Your task to perform on an android device: Empty the shopping cart on bestbuy.com. Image 0: 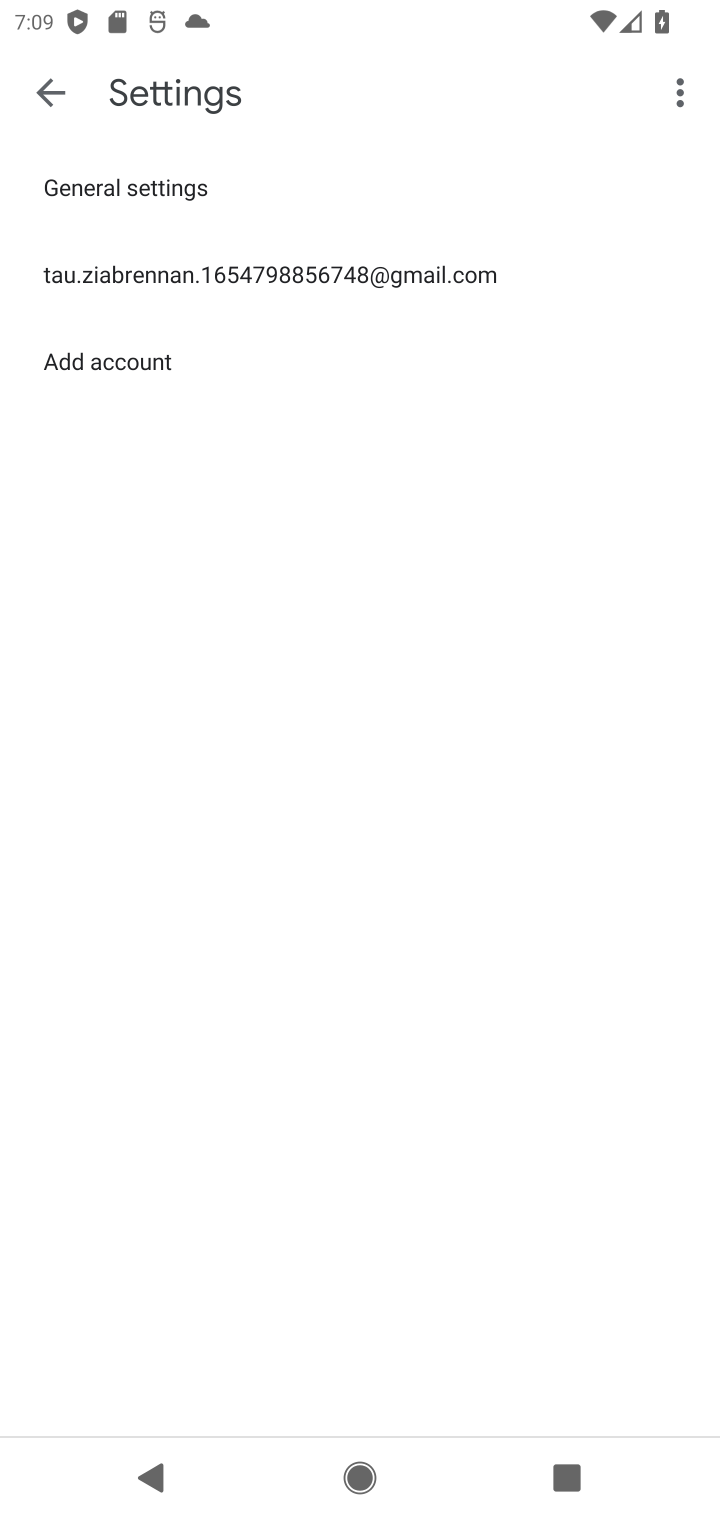
Step 0: press home button
Your task to perform on an android device: Empty the shopping cart on bestbuy.com. Image 1: 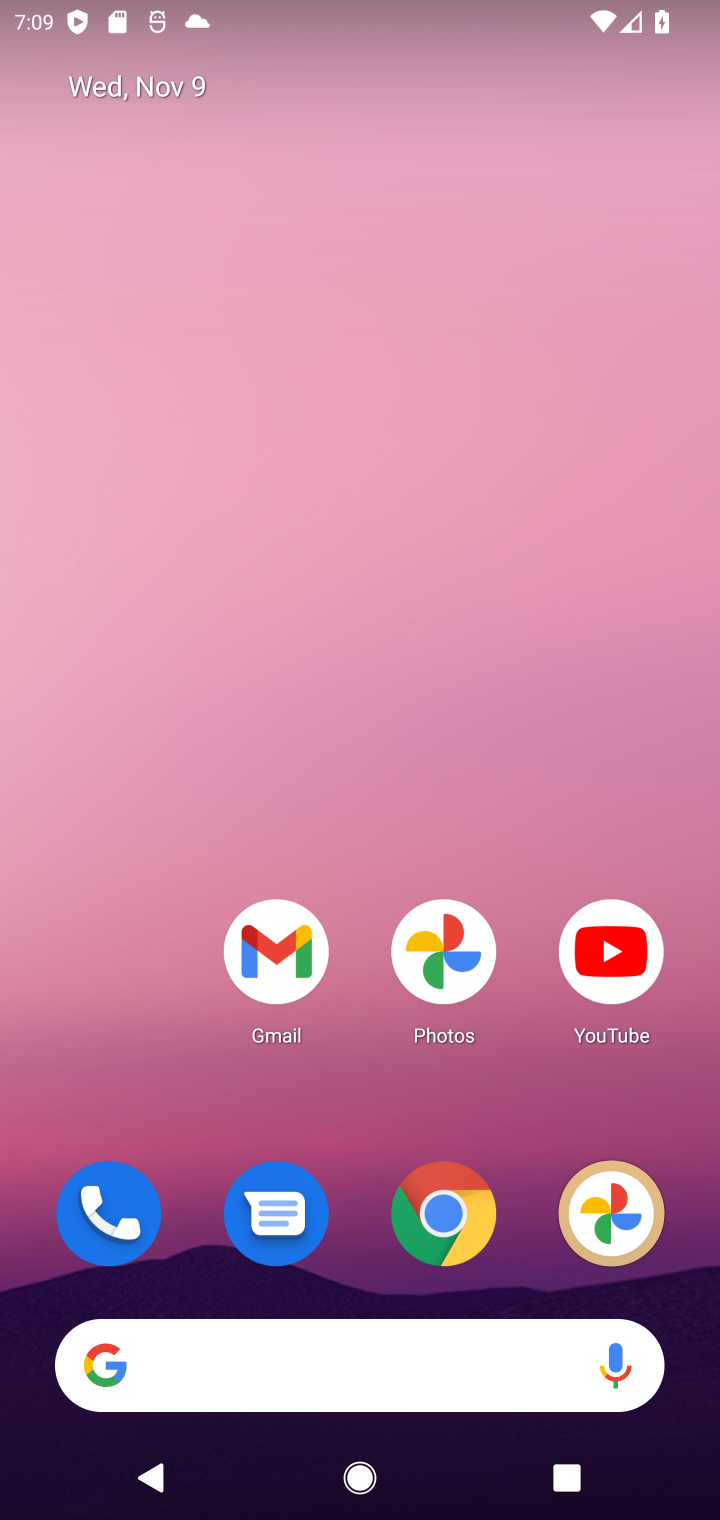
Step 1: click (447, 1256)
Your task to perform on an android device: Empty the shopping cart on bestbuy.com. Image 2: 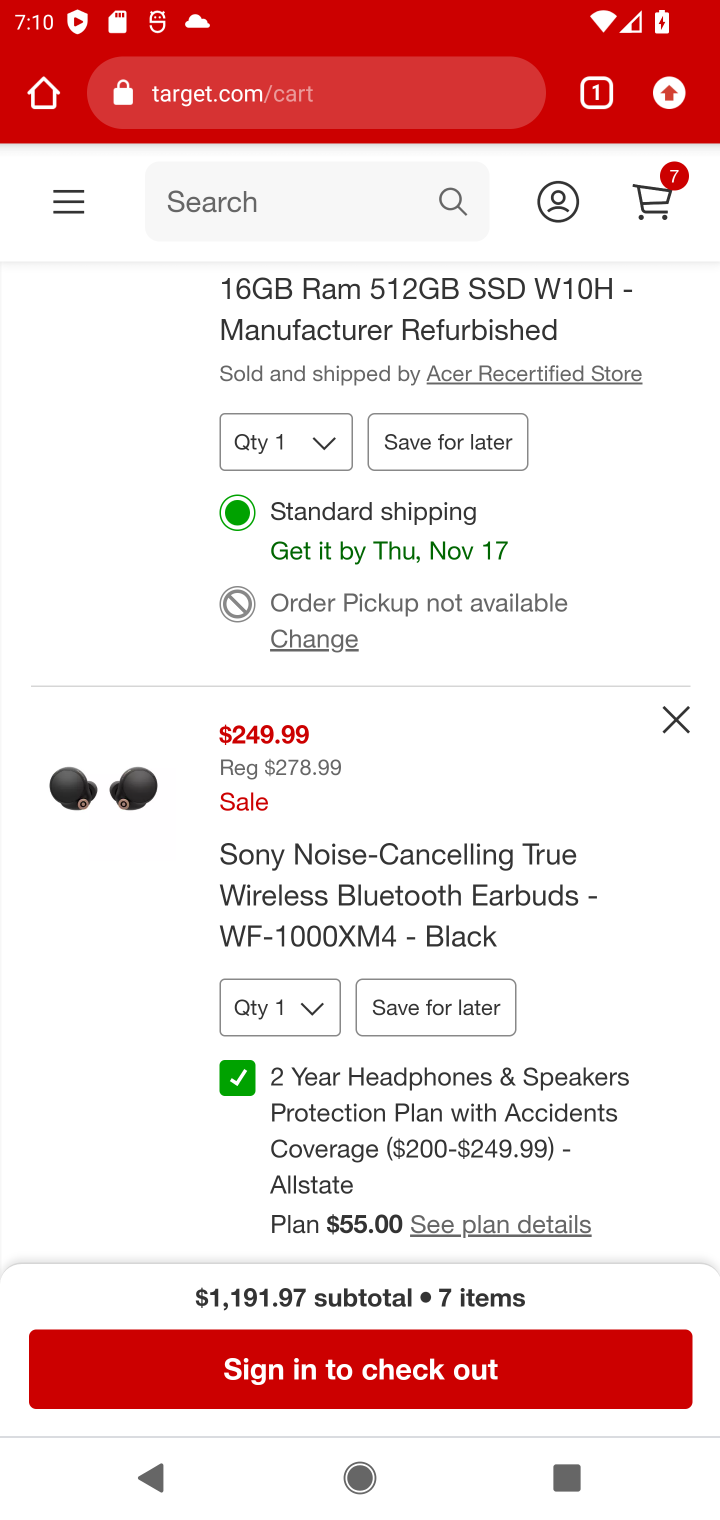
Step 2: click (231, 215)
Your task to perform on an android device: Empty the shopping cart on bestbuy.com. Image 3: 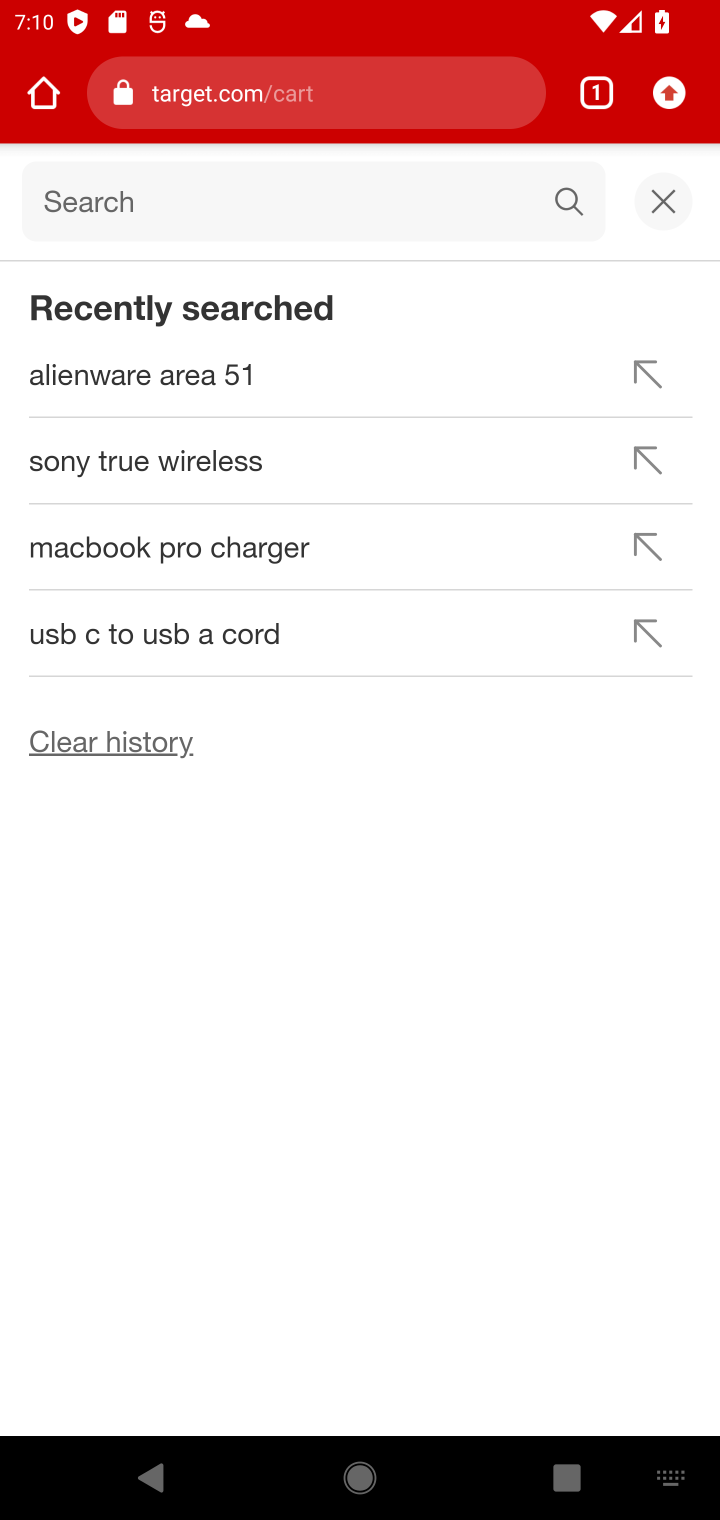
Step 3: type "bestbuy"
Your task to perform on an android device: Empty the shopping cart on bestbuy.com. Image 4: 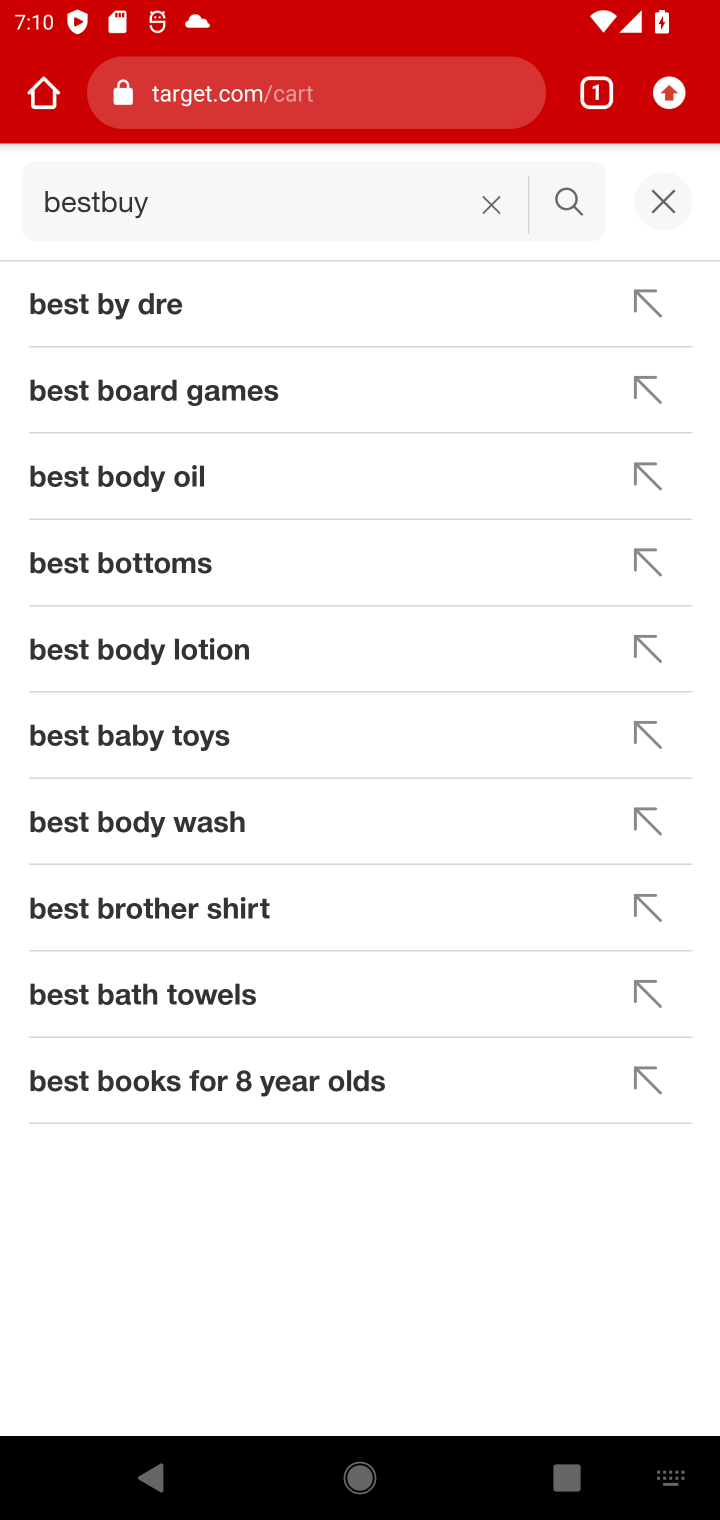
Step 4: click (97, 304)
Your task to perform on an android device: Empty the shopping cart on bestbuy.com. Image 5: 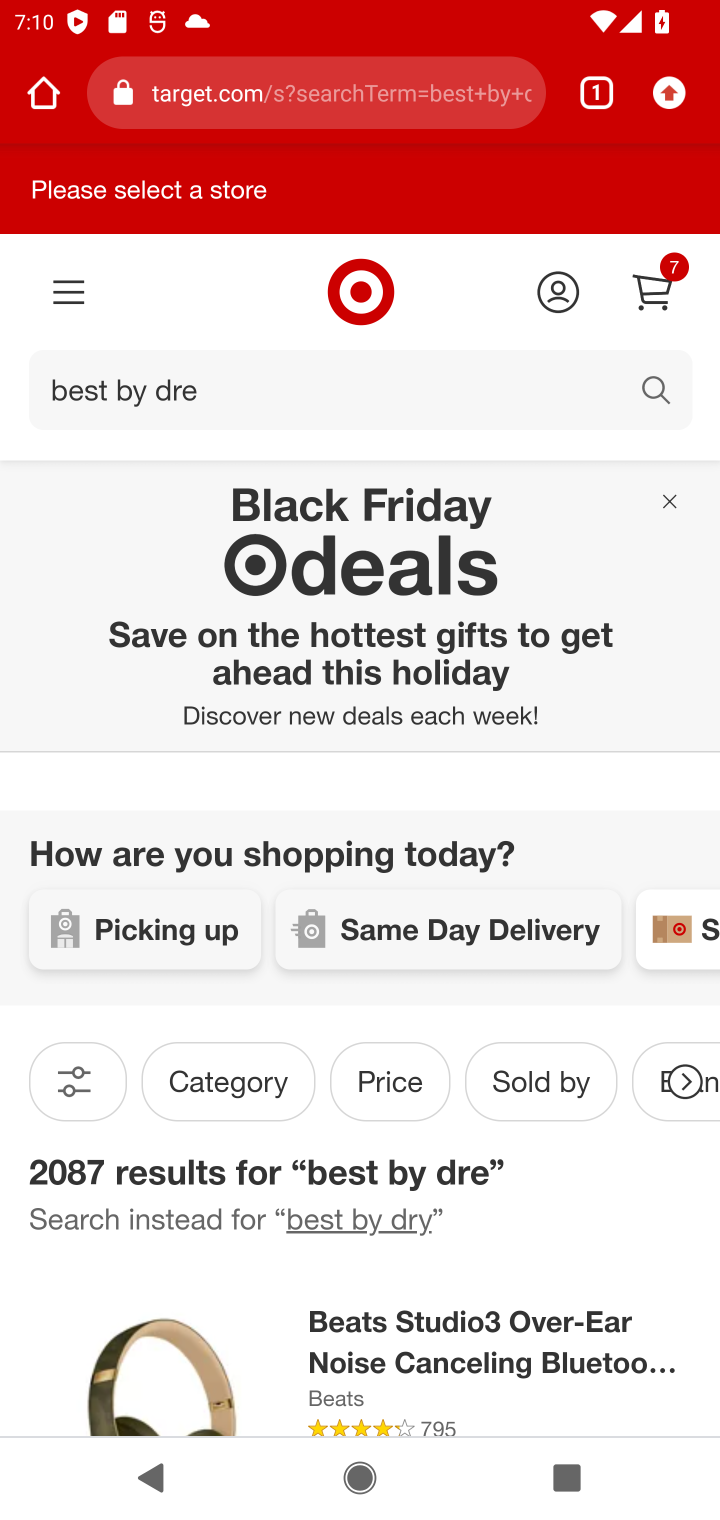
Step 5: drag from (234, 1239) to (250, 604)
Your task to perform on an android device: Empty the shopping cart on bestbuy.com. Image 6: 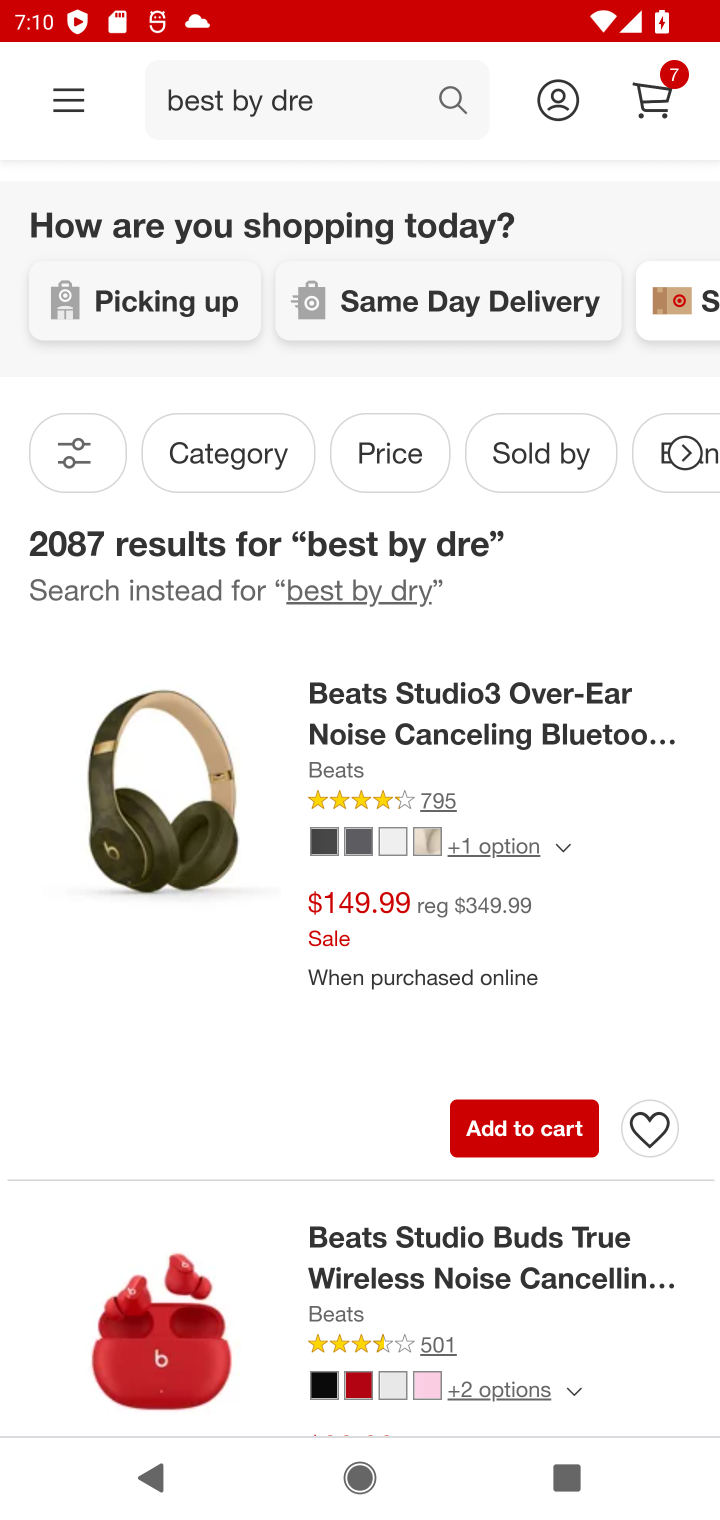
Step 6: drag from (312, 1080) to (320, 604)
Your task to perform on an android device: Empty the shopping cart on bestbuy.com. Image 7: 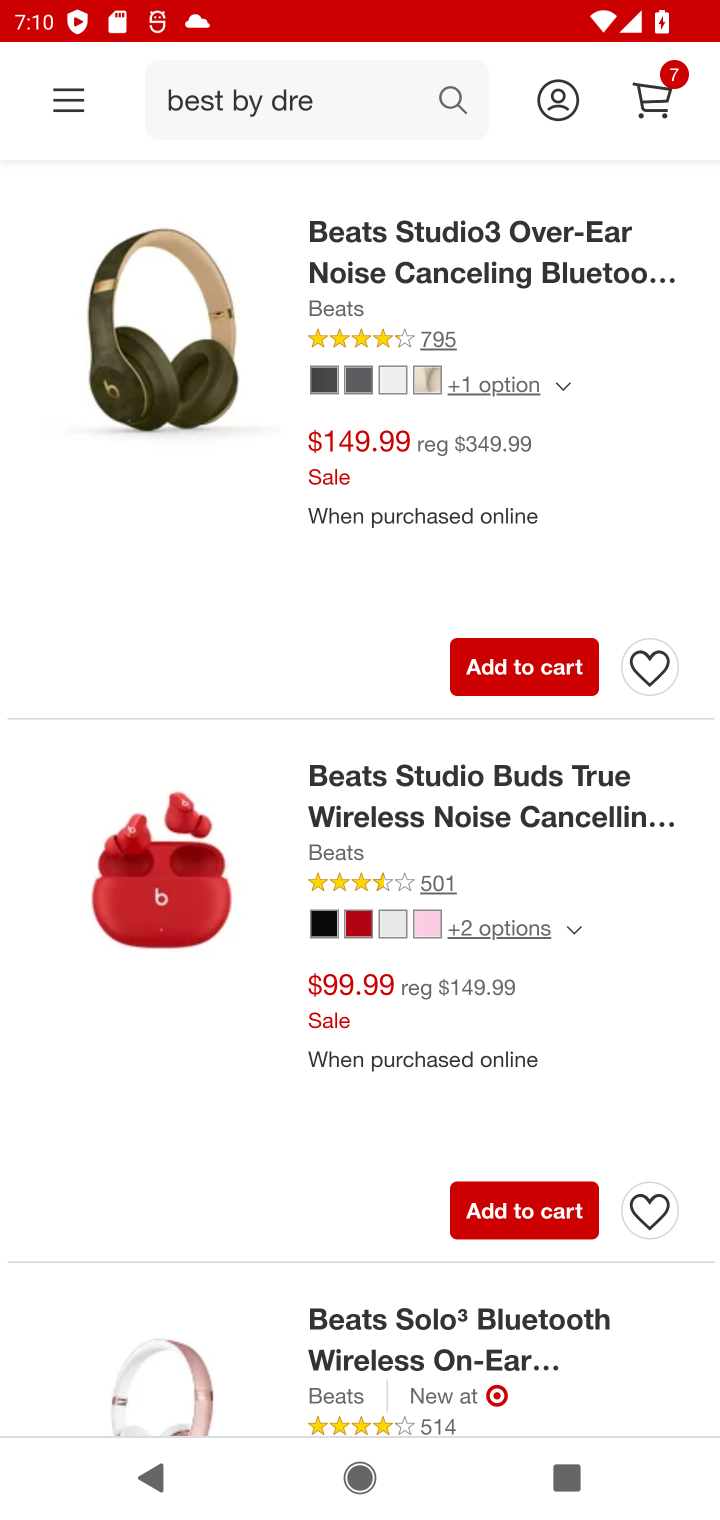
Step 7: click (342, 1308)
Your task to perform on an android device: Empty the shopping cart on bestbuy.com. Image 8: 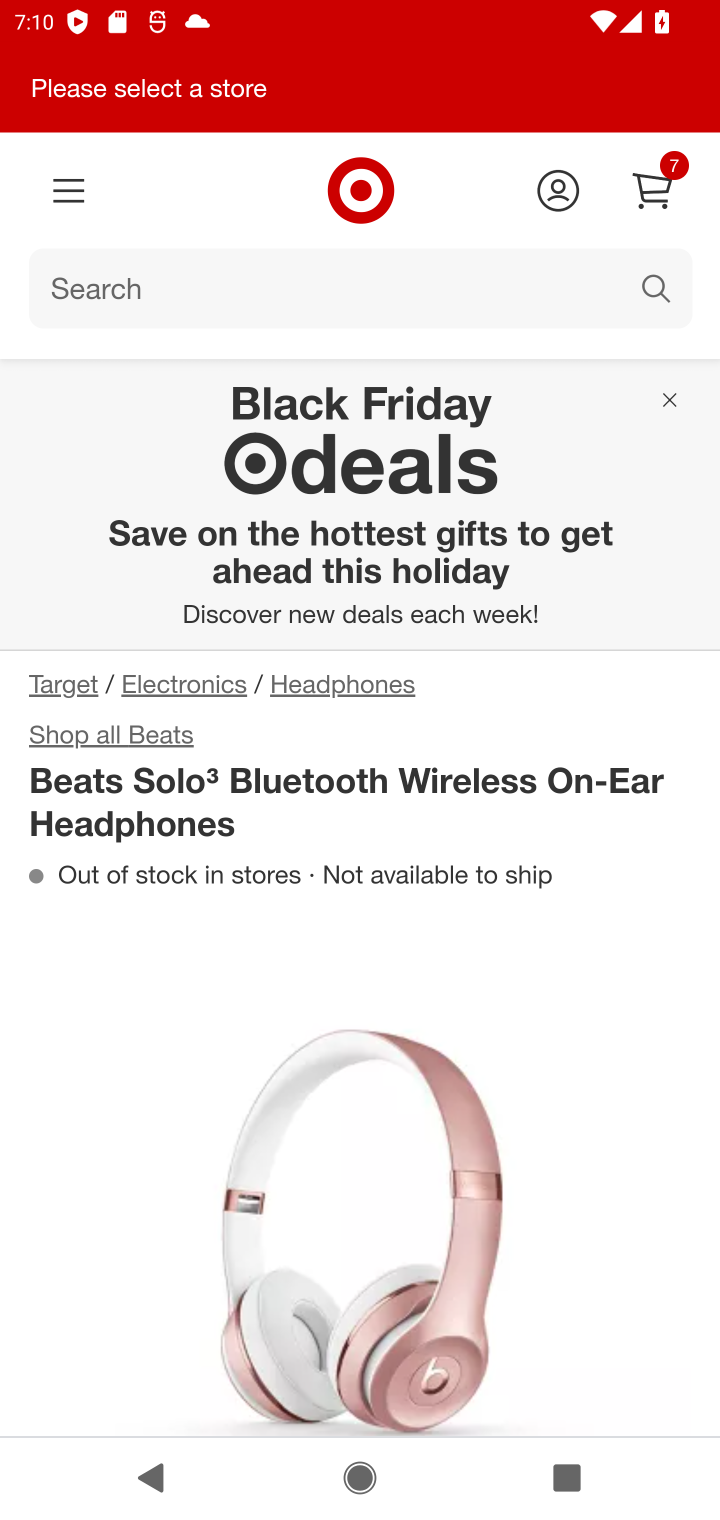
Step 8: drag from (152, 1172) to (390, 383)
Your task to perform on an android device: Empty the shopping cart on bestbuy.com. Image 9: 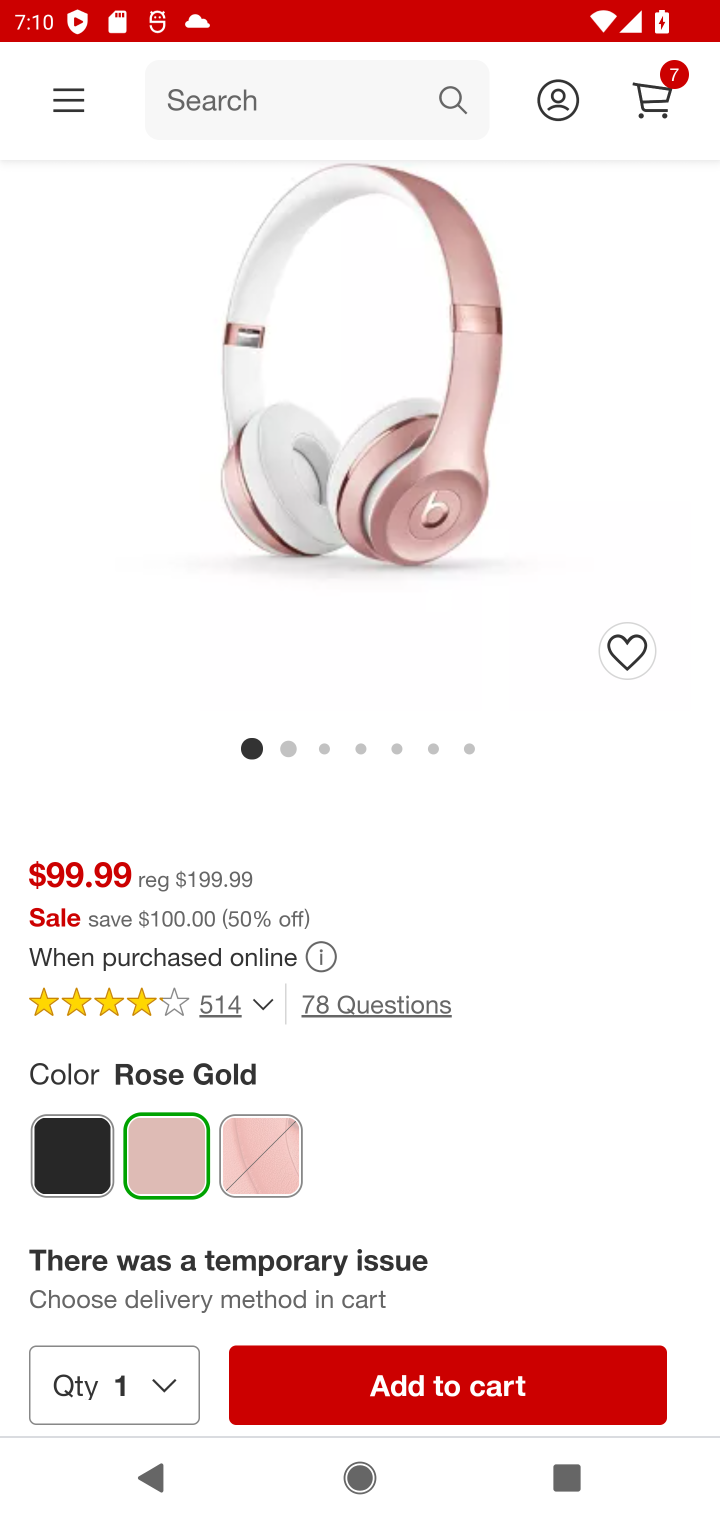
Step 9: drag from (232, 946) to (279, 376)
Your task to perform on an android device: Empty the shopping cart on bestbuy.com. Image 10: 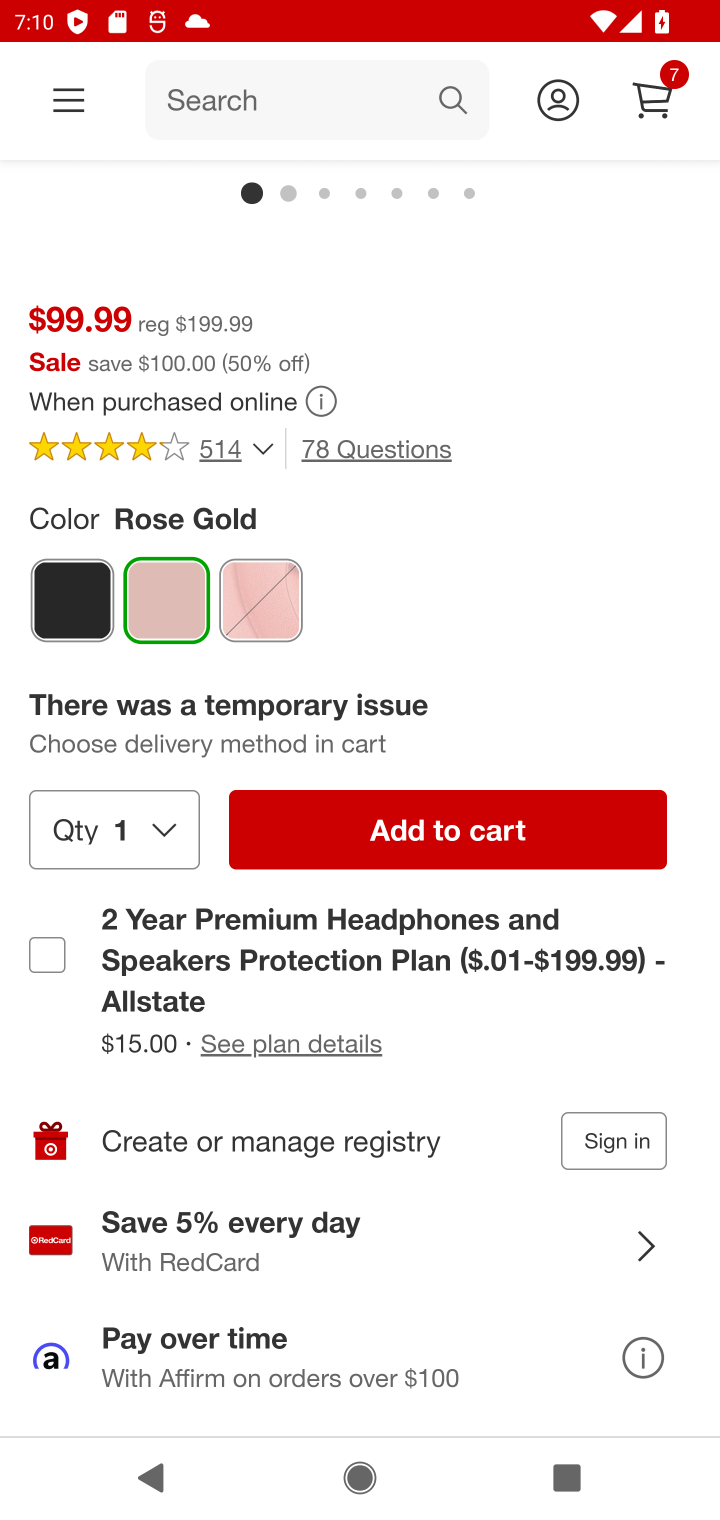
Step 10: click (653, 98)
Your task to perform on an android device: Empty the shopping cart on bestbuy.com. Image 11: 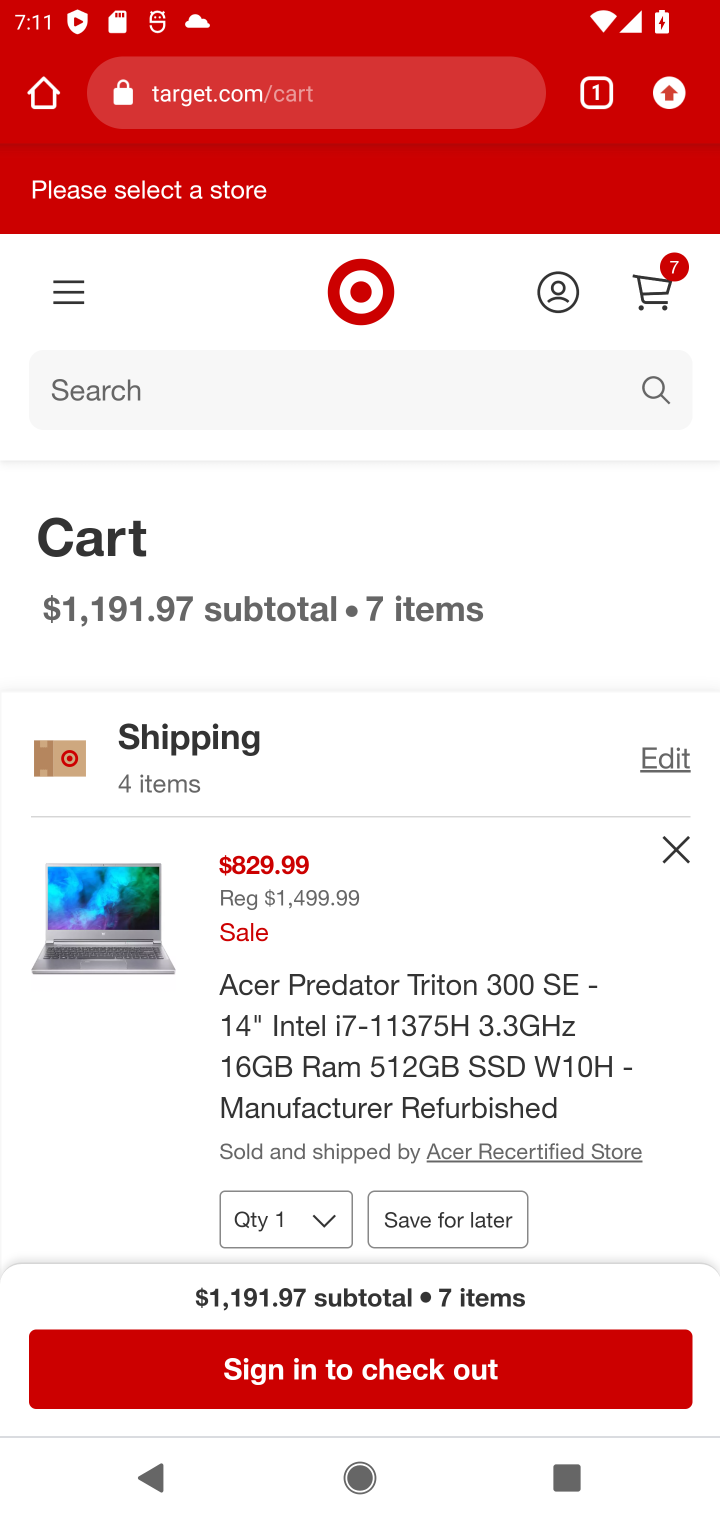
Step 11: drag from (134, 888) to (188, 523)
Your task to perform on an android device: Empty the shopping cart on bestbuy.com. Image 12: 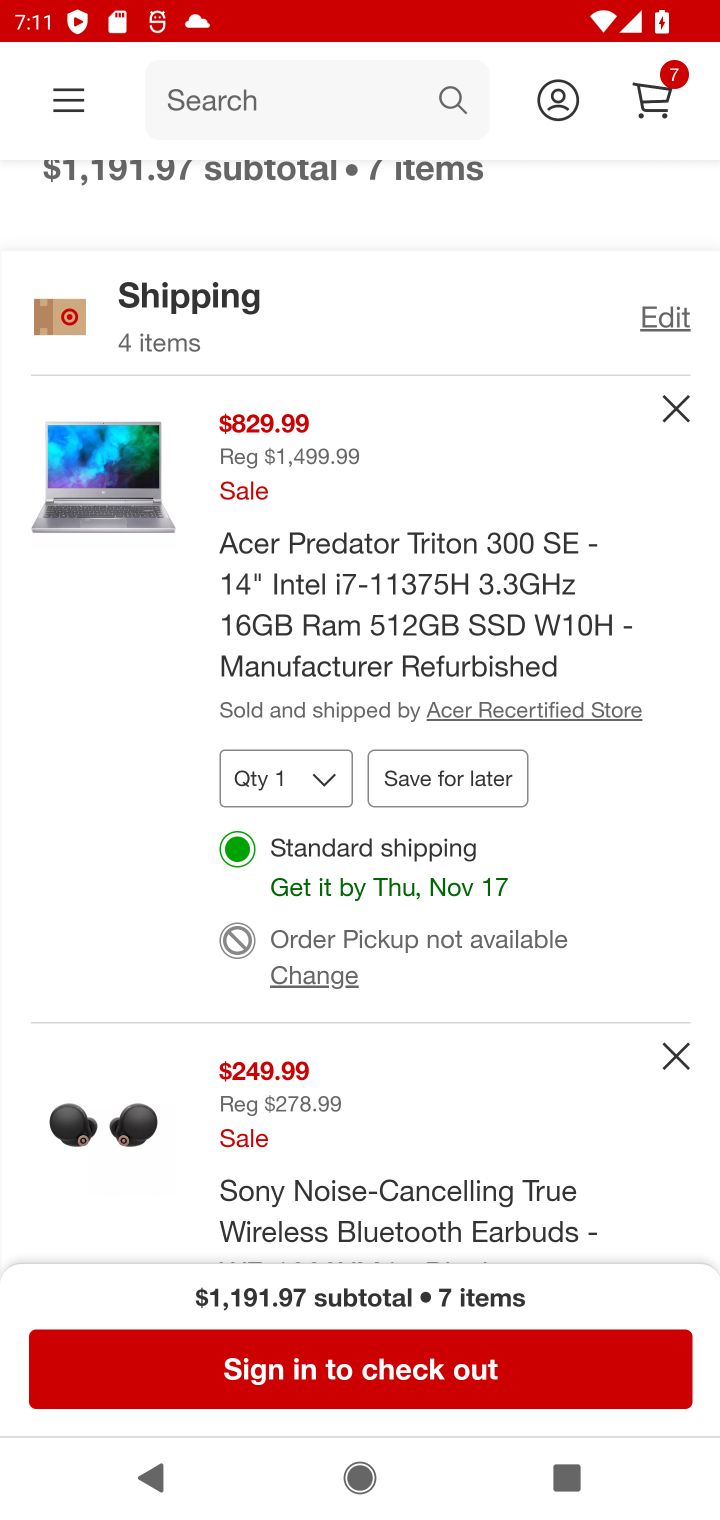
Step 12: click (674, 408)
Your task to perform on an android device: Empty the shopping cart on bestbuy.com. Image 13: 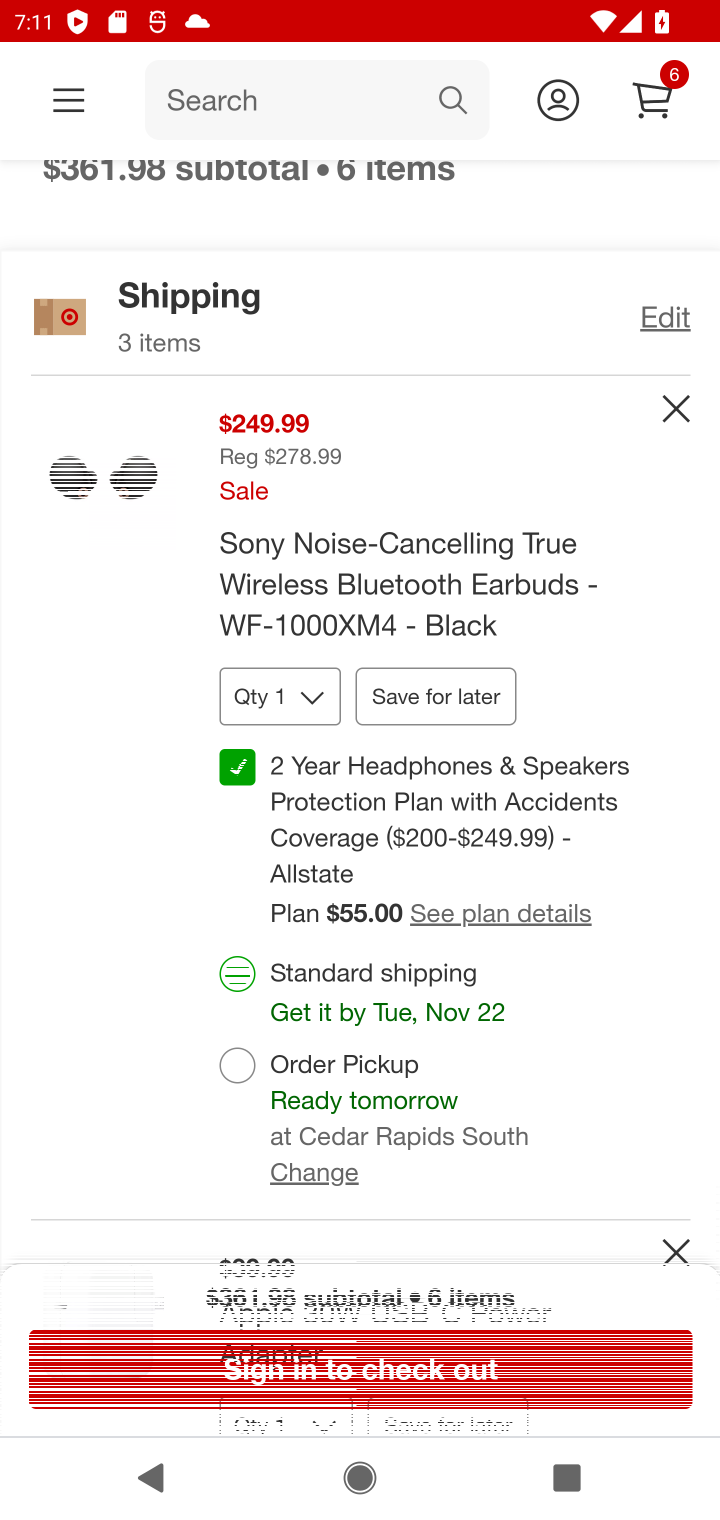
Step 13: click (671, 395)
Your task to perform on an android device: Empty the shopping cart on bestbuy.com. Image 14: 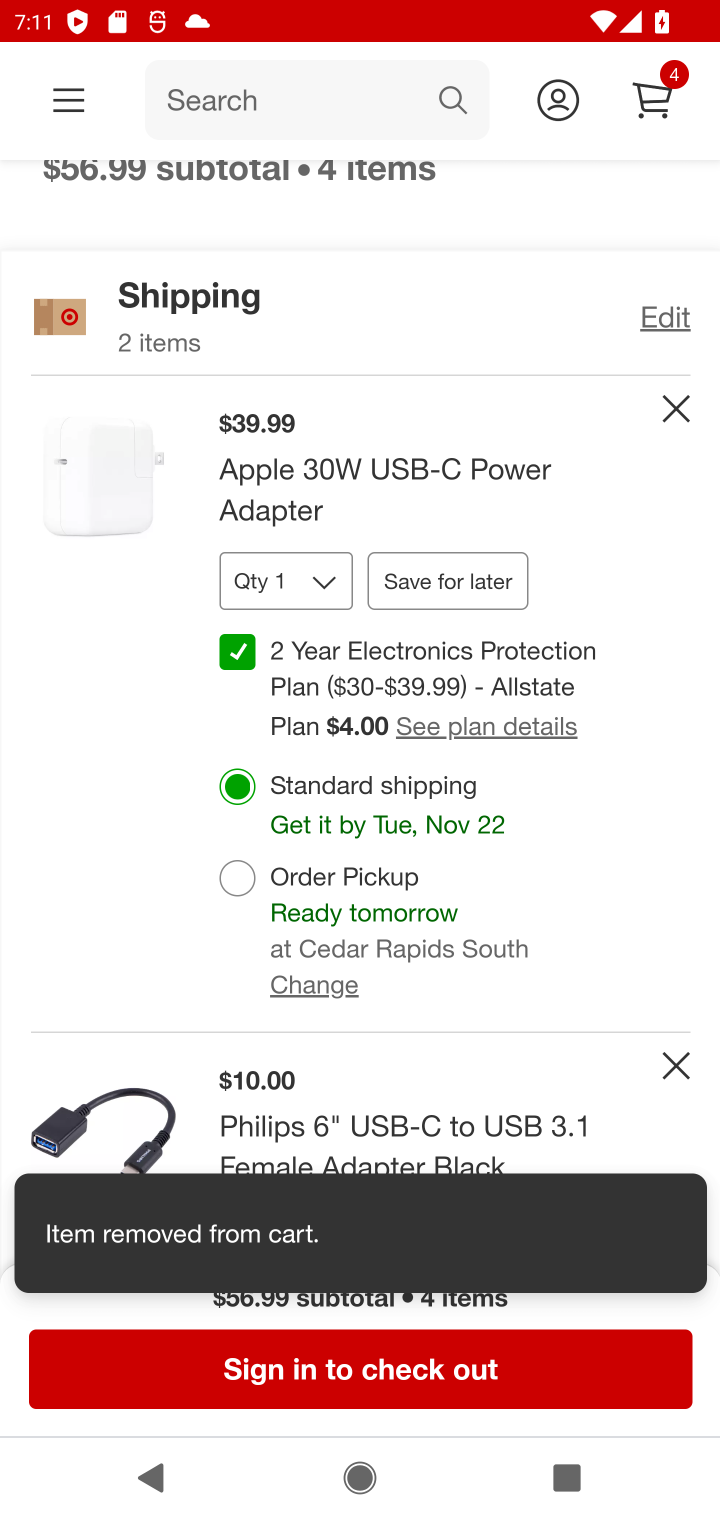
Step 14: click (683, 407)
Your task to perform on an android device: Empty the shopping cart on bestbuy.com. Image 15: 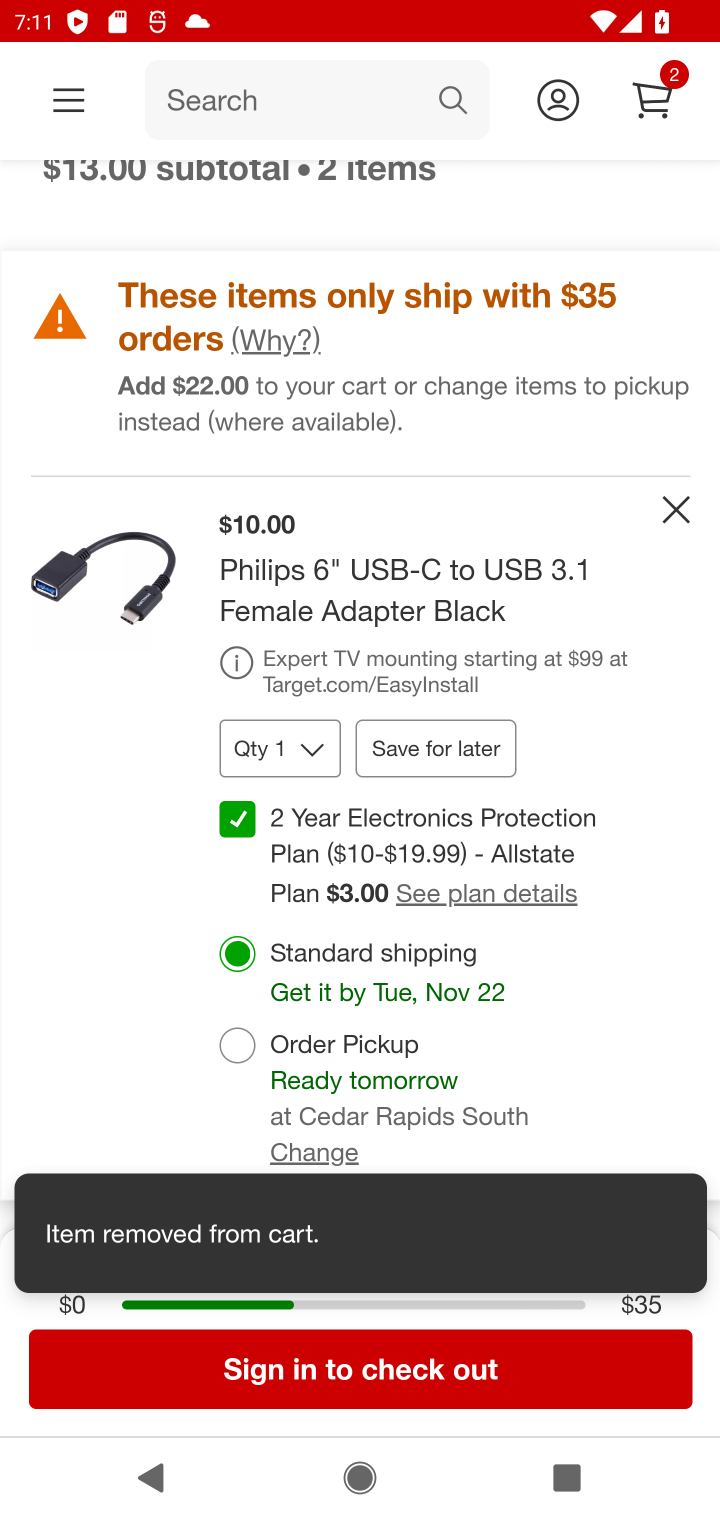
Step 15: click (677, 503)
Your task to perform on an android device: Empty the shopping cart on bestbuy.com. Image 16: 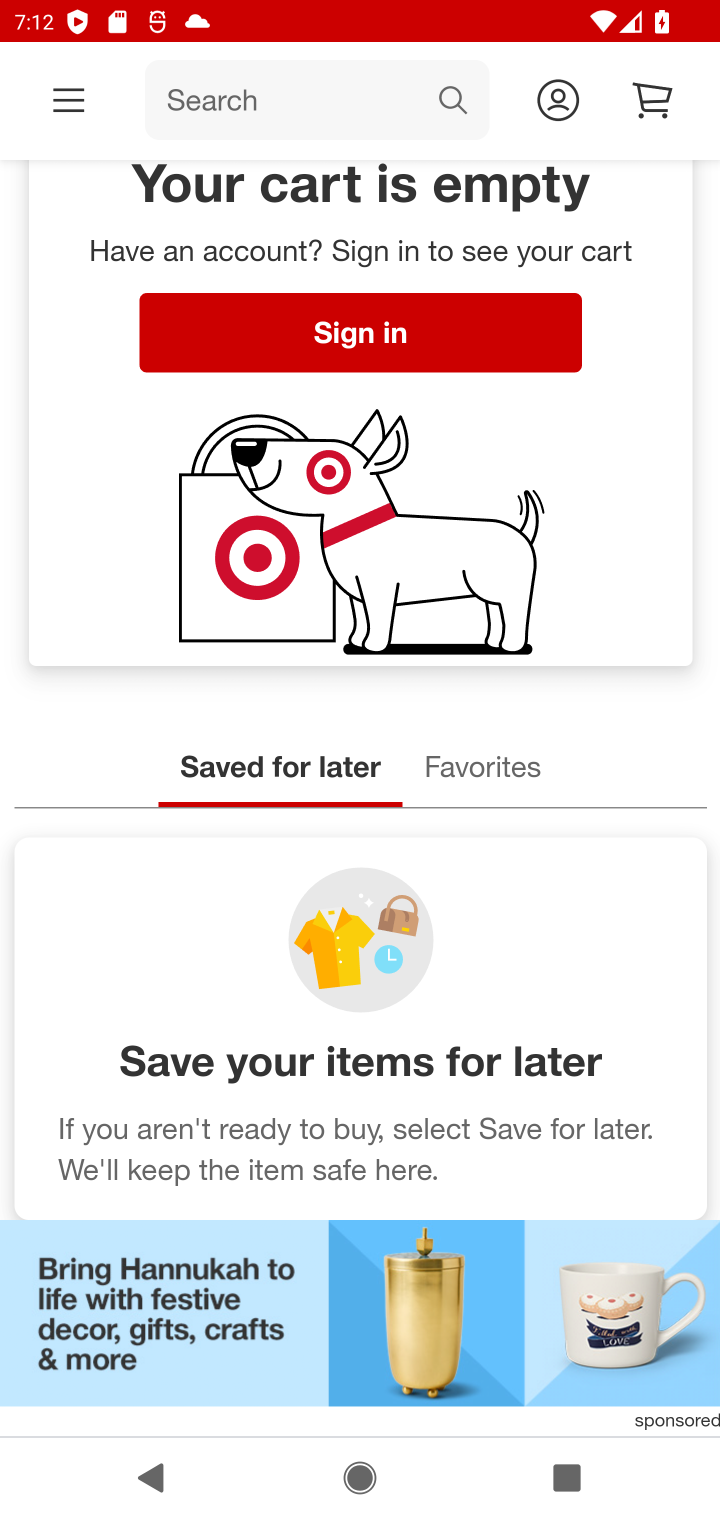
Step 16: task complete